Your task to perform on an android device: turn notification dots on Image 0: 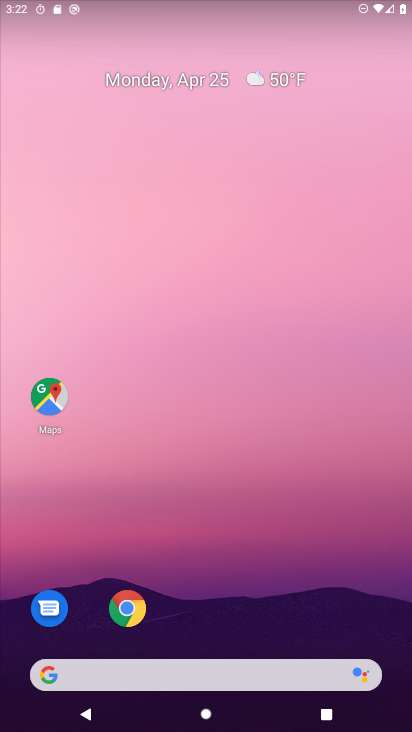
Step 0: drag from (240, 441) to (240, 253)
Your task to perform on an android device: turn notification dots on Image 1: 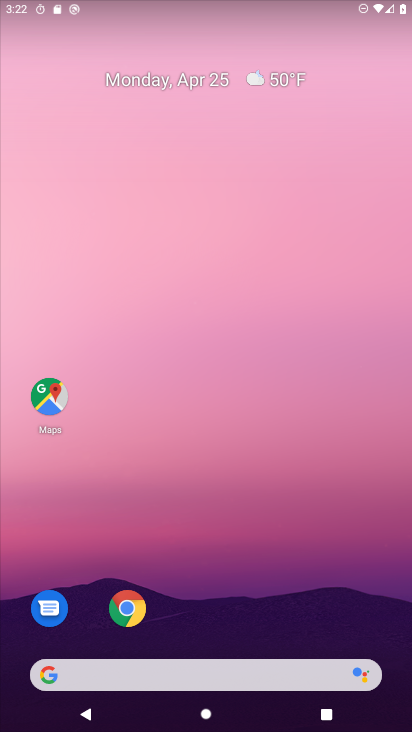
Step 1: drag from (236, 626) to (254, 111)
Your task to perform on an android device: turn notification dots on Image 2: 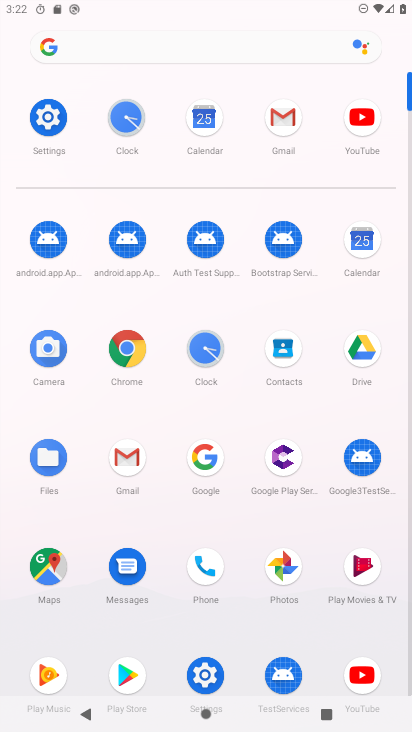
Step 2: click (62, 130)
Your task to perform on an android device: turn notification dots on Image 3: 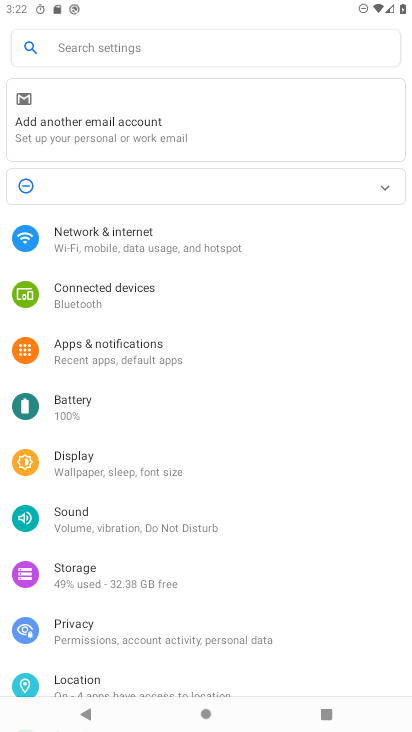
Step 3: click (109, 333)
Your task to perform on an android device: turn notification dots on Image 4: 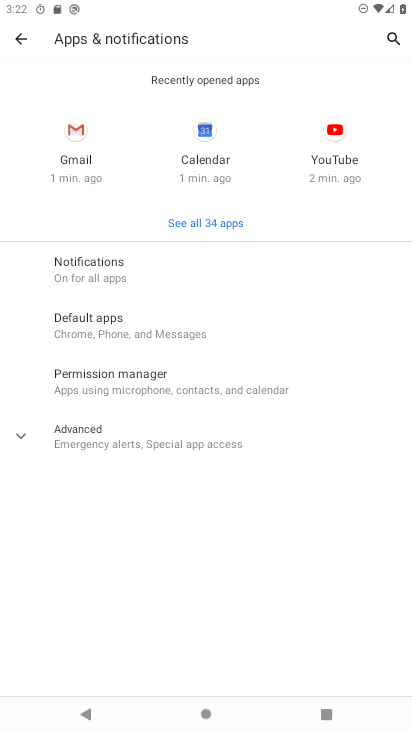
Step 4: click (143, 271)
Your task to perform on an android device: turn notification dots on Image 5: 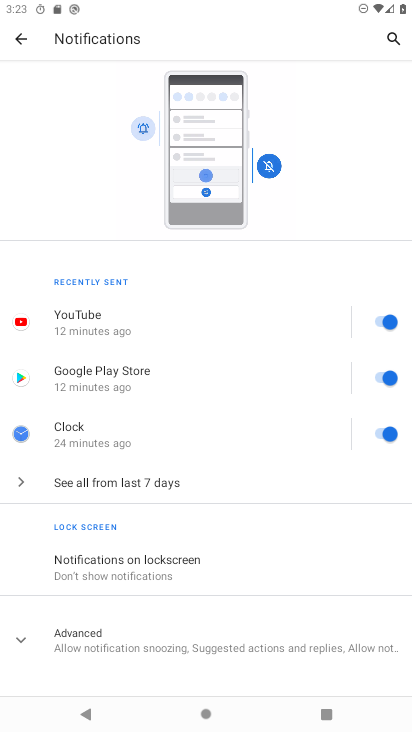
Step 5: drag from (236, 273) to (172, 643)
Your task to perform on an android device: turn notification dots on Image 6: 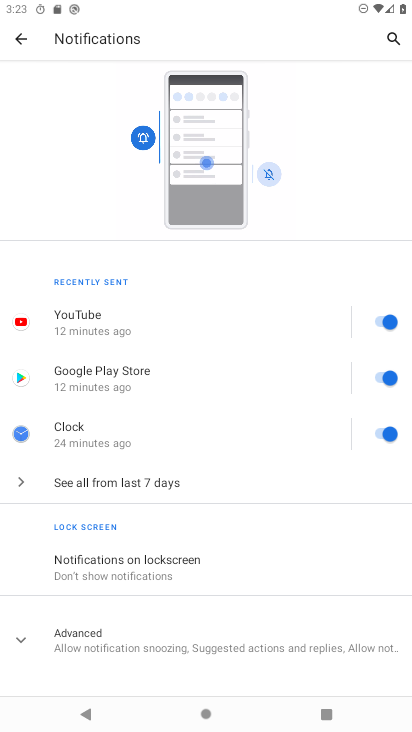
Step 6: drag from (220, 601) to (274, 290)
Your task to perform on an android device: turn notification dots on Image 7: 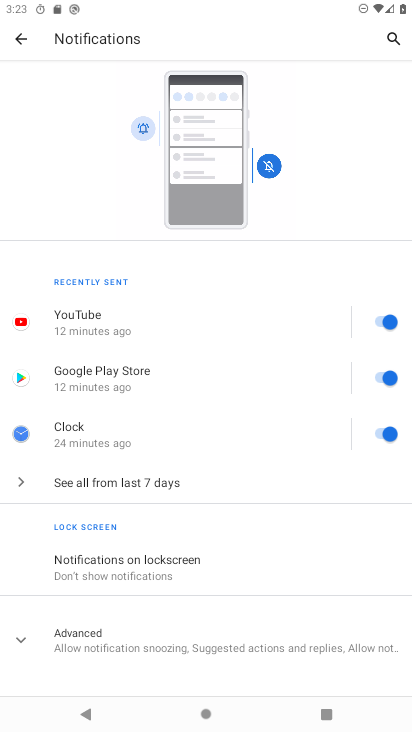
Step 7: click (98, 634)
Your task to perform on an android device: turn notification dots on Image 8: 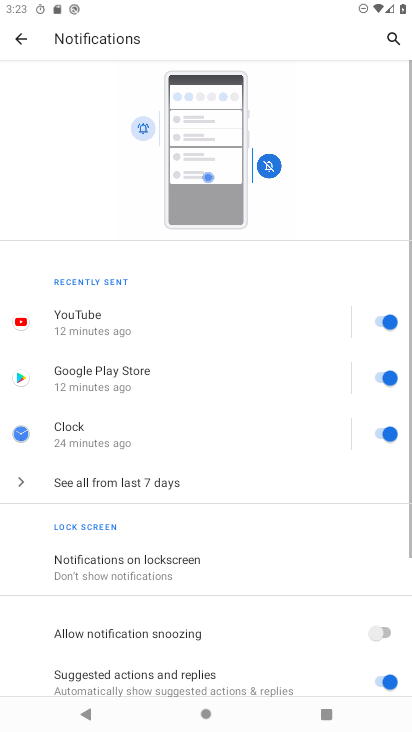
Step 8: drag from (189, 608) to (250, 329)
Your task to perform on an android device: turn notification dots on Image 9: 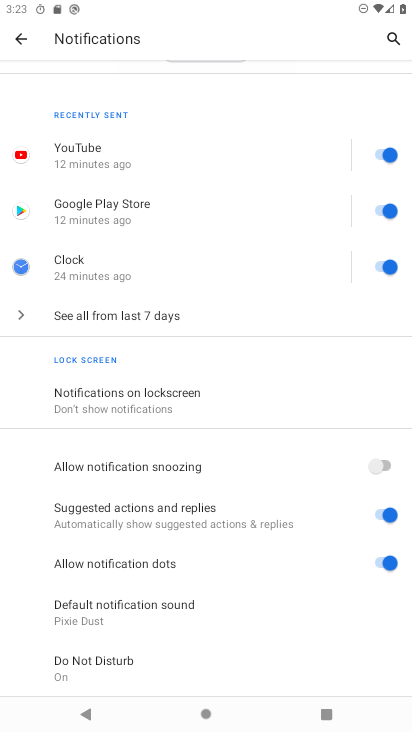
Step 9: click (373, 561)
Your task to perform on an android device: turn notification dots on Image 10: 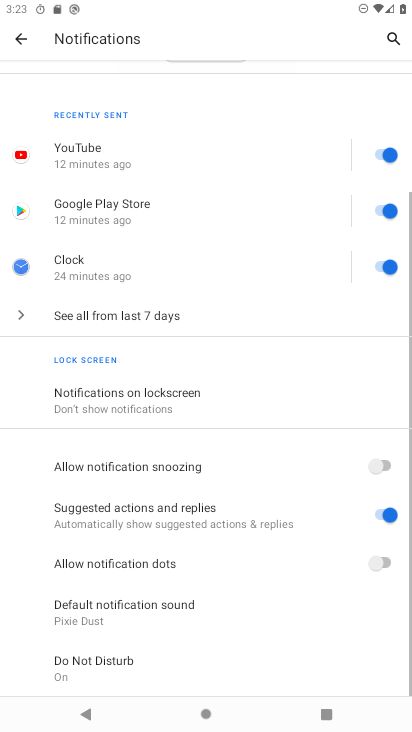
Step 10: click (388, 567)
Your task to perform on an android device: turn notification dots on Image 11: 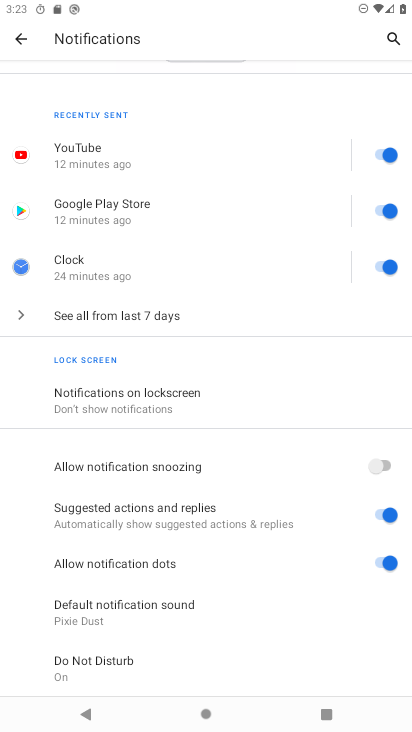
Step 11: task complete